Your task to perform on an android device: toggle pop-ups in chrome Image 0: 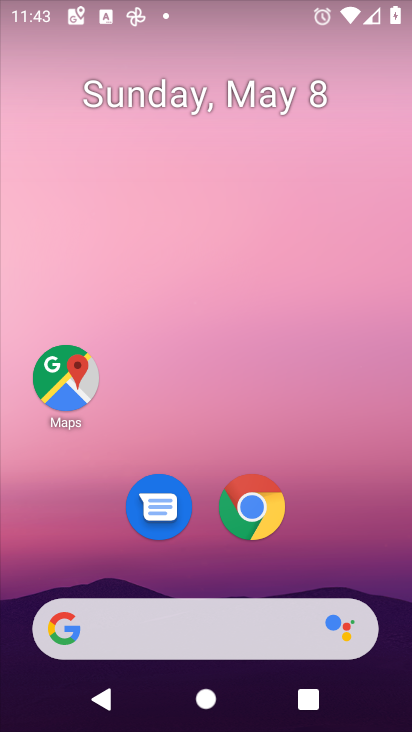
Step 0: click (308, 314)
Your task to perform on an android device: toggle pop-ups in chrome Image 1: 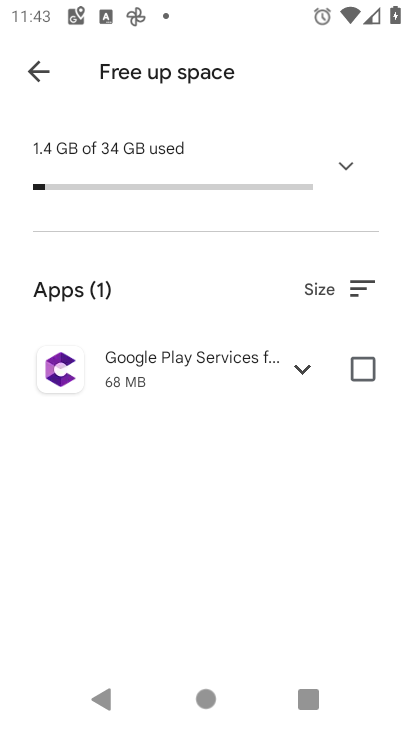
Step 1: press home button
Your task to perform on an android device: toggle pop-ups in chrome Image 2: 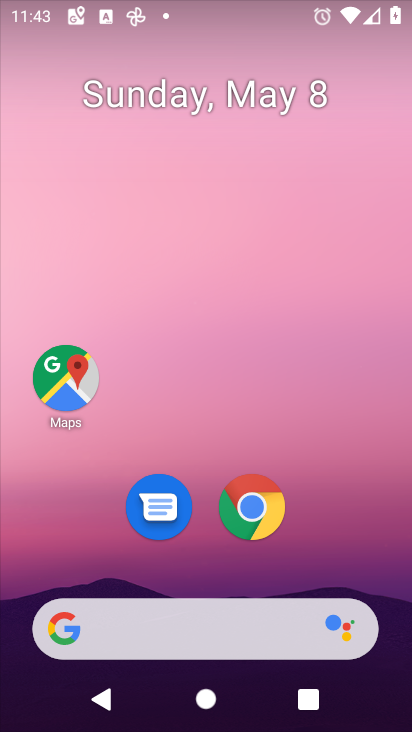
Step 2: click (230, 510)
Your task to perform on an android device: toggle pop-ups in chrome Image 3: 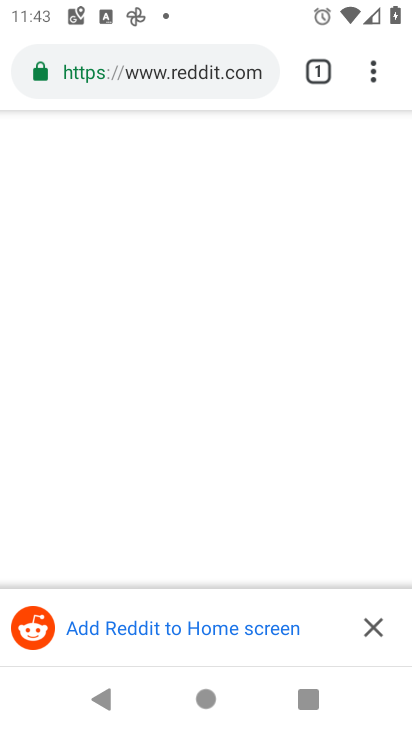
Step 3: click (377, 74)
Your task to perform on an android device: toggle pop-ups in chrome Image 4: 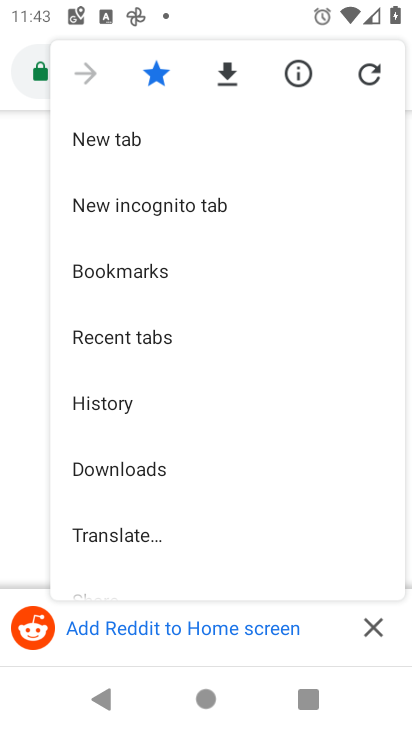
Step 4: drag from (231, 562) to (193, 10)
Your task to perform on an android device: toggle pop-ups in chrome Image 5: 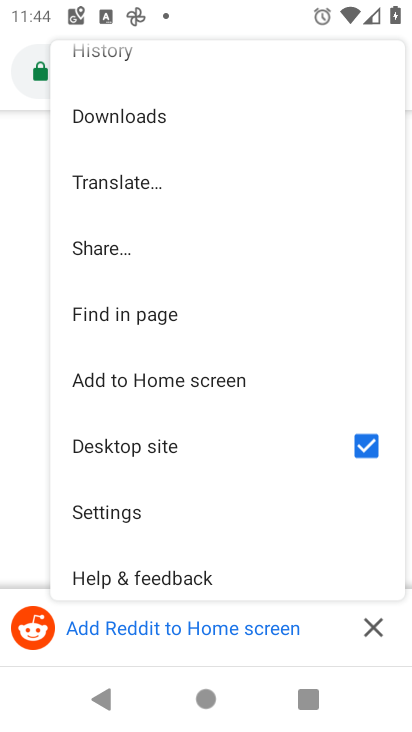
Step 5: click (116, 518)
Your task to perform on an android device: toggle pop-ups in chrome Image 6: 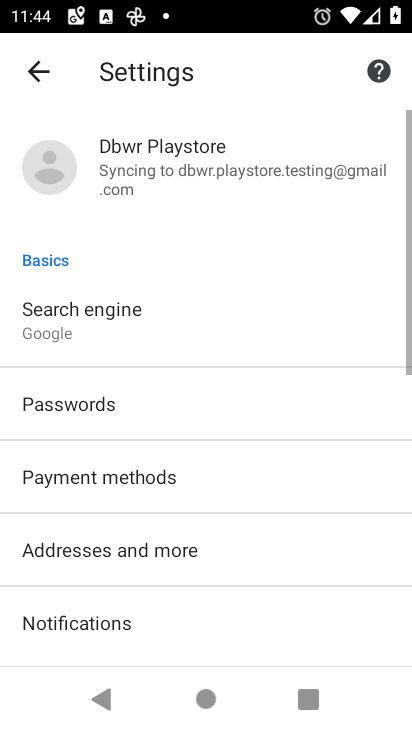
Step 6: drag from (240, 617) to (172, 74)
Your task to perform on an android device: toggle pop-ups in chrome Image 7: 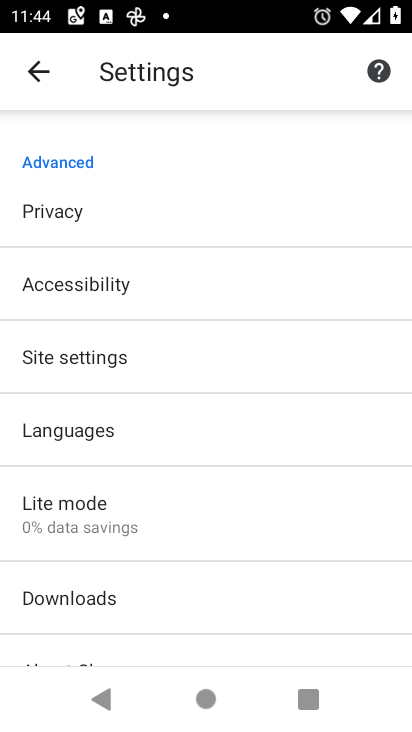
Step 7: click (103, 359)
Your task to perform on an android device: toggle pop-ups in chrome Image 8: 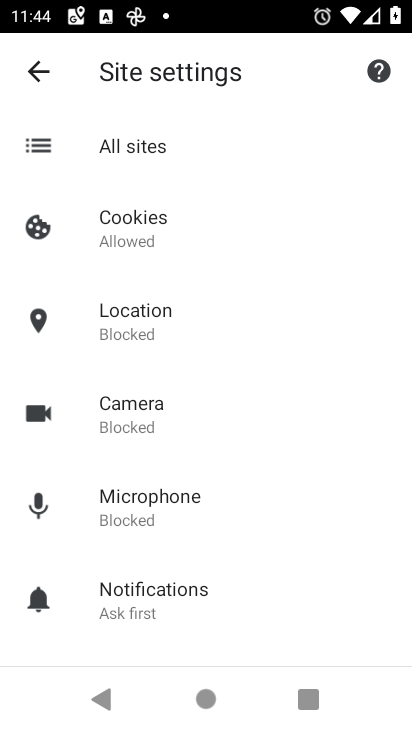
Step 8: drag from (291, 598) to (235, 66)
Your task to perform on an android device: toggle pop-ups in chrome Image 9: 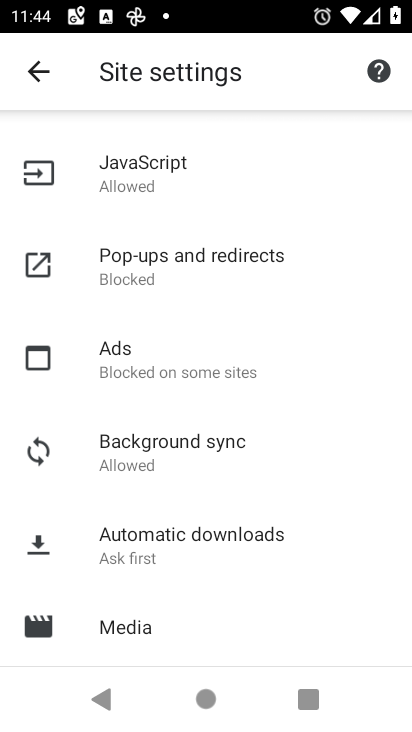
Step 9: click (214, 278)
Your task to perform on an android device: toggle pop-ups in chrome Image 10: 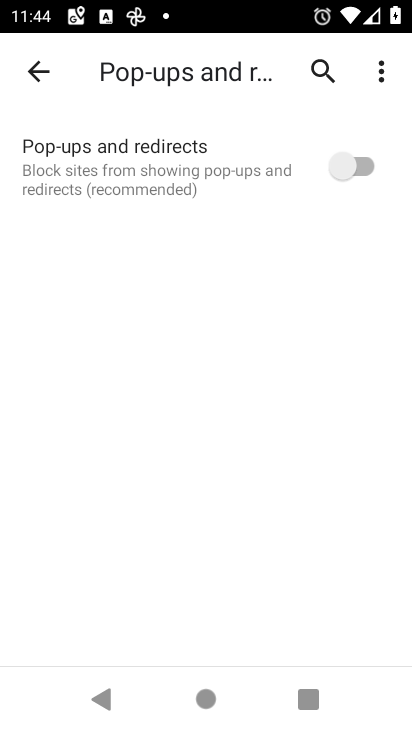
Step 10: click (371, 155)
Your task to perform on an android device: toggle pop-ups in chrome Image 11: 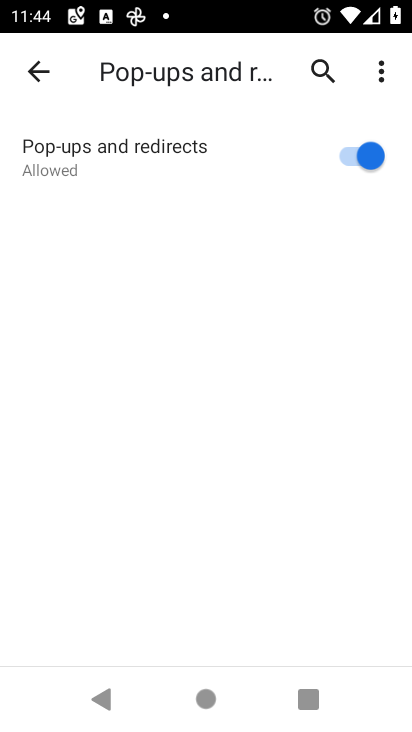
Step 11: task complete